Your task to perform on an android device: turn off smart reply in the gmail app Image 0: 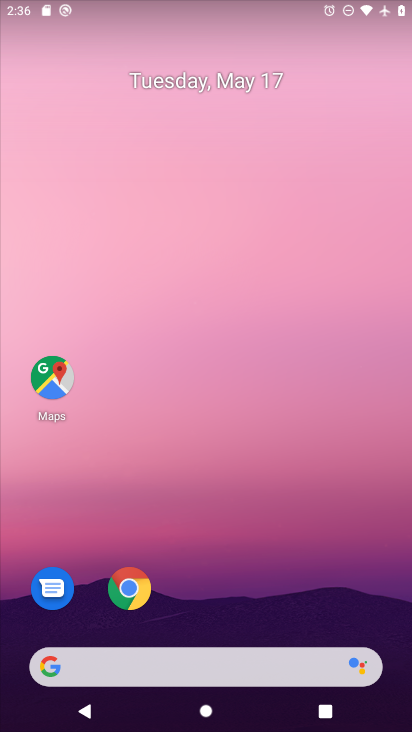
Step 0: drag from (227, 614) to (164, 210)
Your task to perform on an android device: turn off smart reply in the gmail app Image 1: 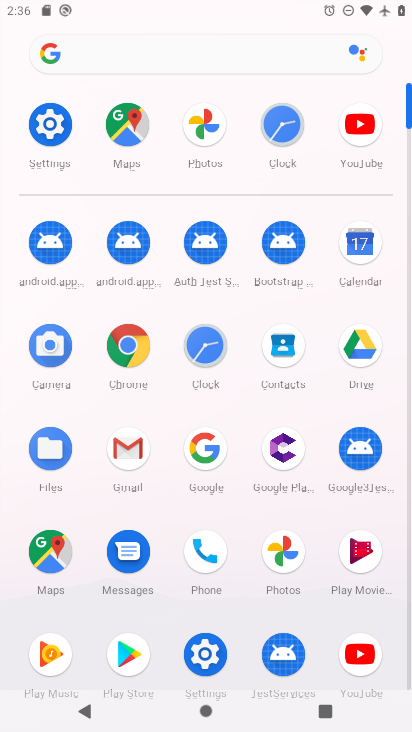
Step 1: click (135, 450)
Your task to perform on an android device: turn off smart reply in the gmail app Image 2: 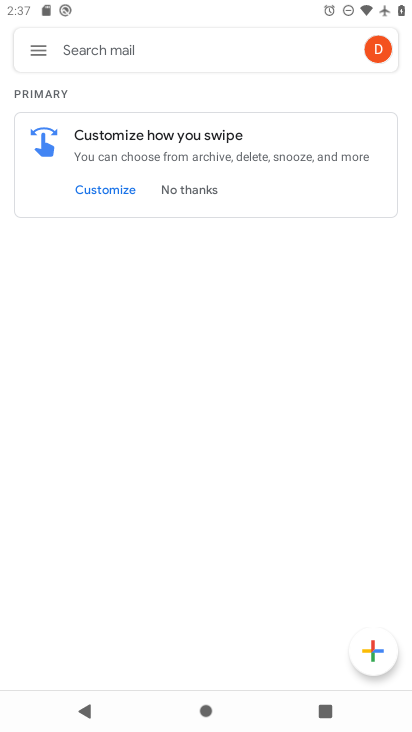
Step 2: click (41, 47)
Your task to perform on an android device: turn off smart reply in the gmail app Image 3: 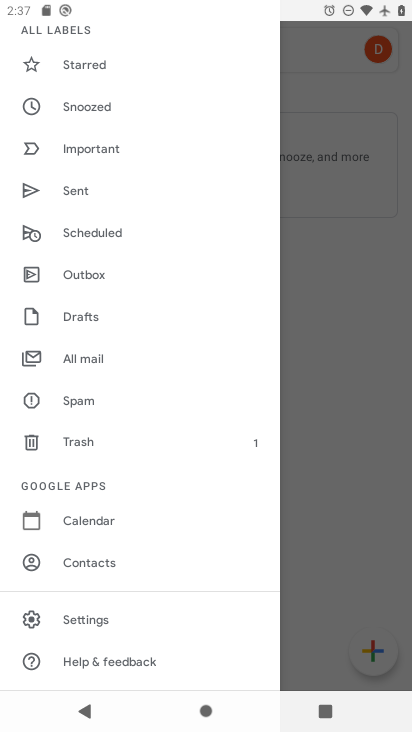
Step 3: click (77, 617)
Your task to perform on an android device: turn off smart reply in the gmail app Image 4: 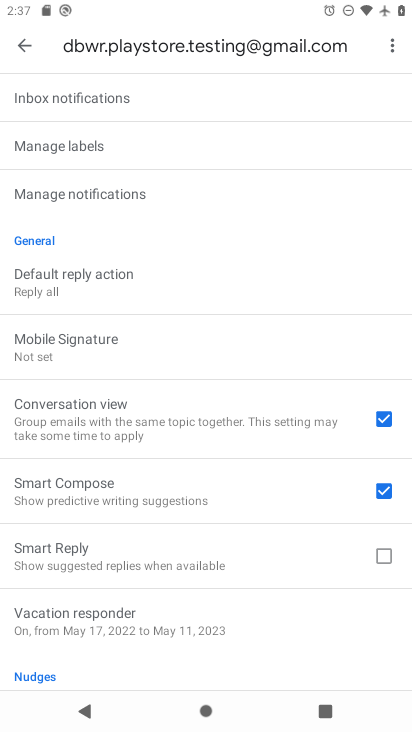
Step 4: task complete